Your task to perform on an android device: Search for Italian restaurants on Maps Image 0: 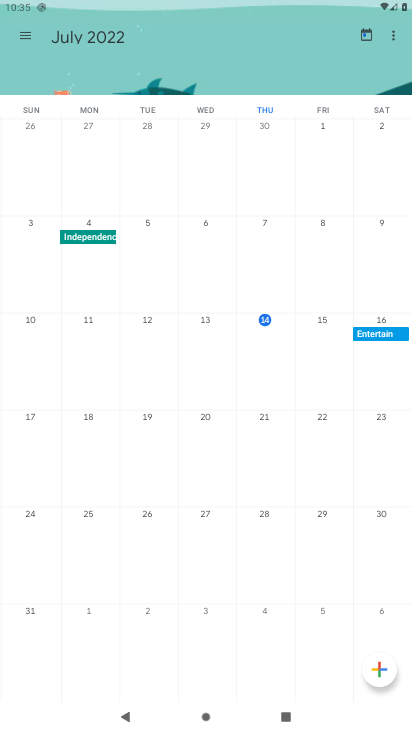
Step 0: press home button
Your task to perform on an android device: Search for Italian restaurants on Maps Image 1: 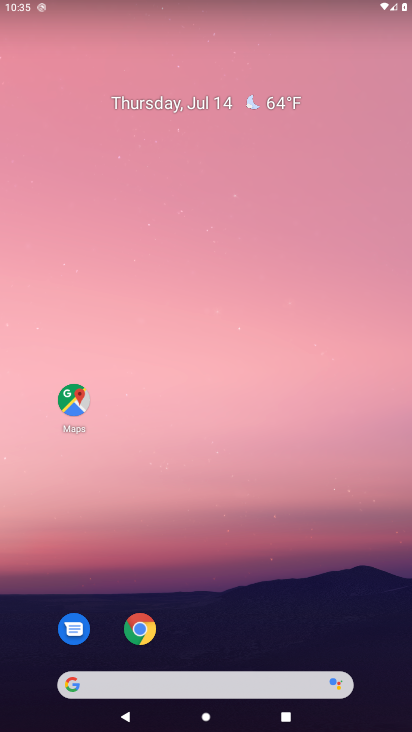
Step 1: click (74, 391)
Your task to perform on an android device: Search for Italian restaurants on Maps Image 2: 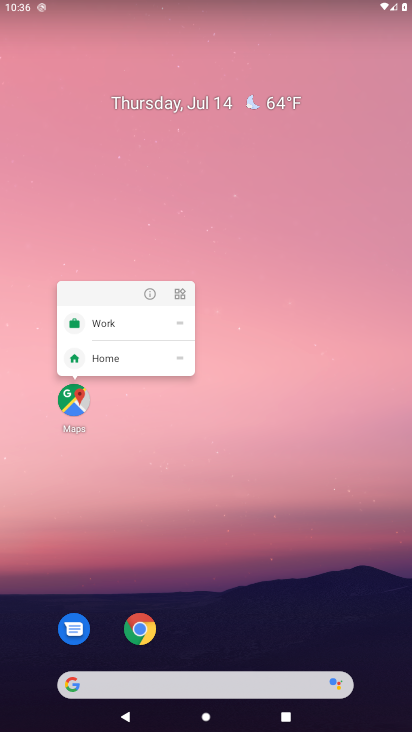
Step 2: click (84, 404)
Your task to perform on an android device: Search for Italian restaurants on Maps Image 3: 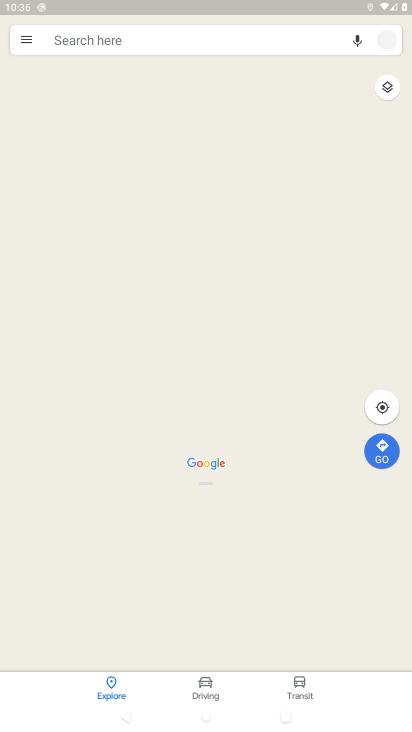
Step 3: click (168, 40)
Your task to perform on an android device: Search for Italian restaurants on Maps Image 4: 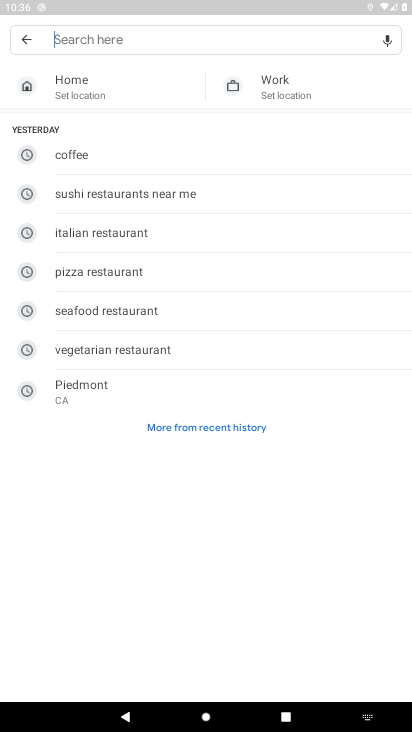
Step 4: click (69, 230)
Your task to perform on an android device: Search for Italian restaurants on Maps Image 5: 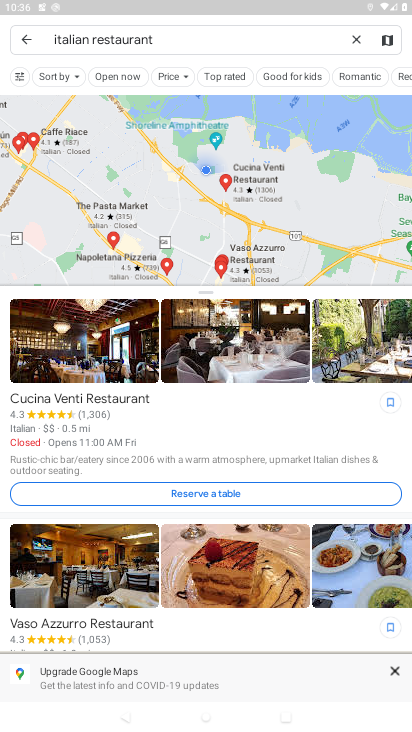
Step 5: task complete